Your task to perform on an android device: open app "Facebook" Image 0: 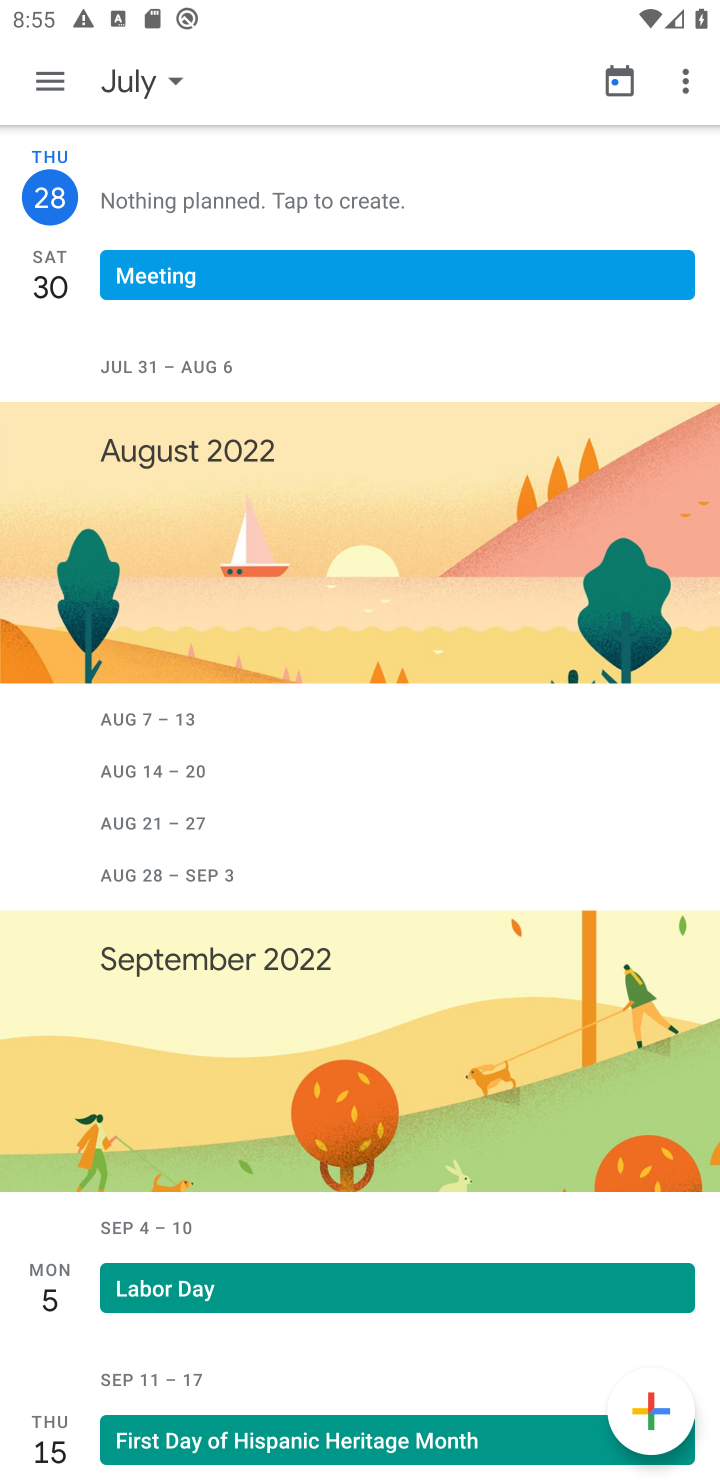
Step 0: press home button
Your task to perform on an android device: open app "Facebook" Image 1: 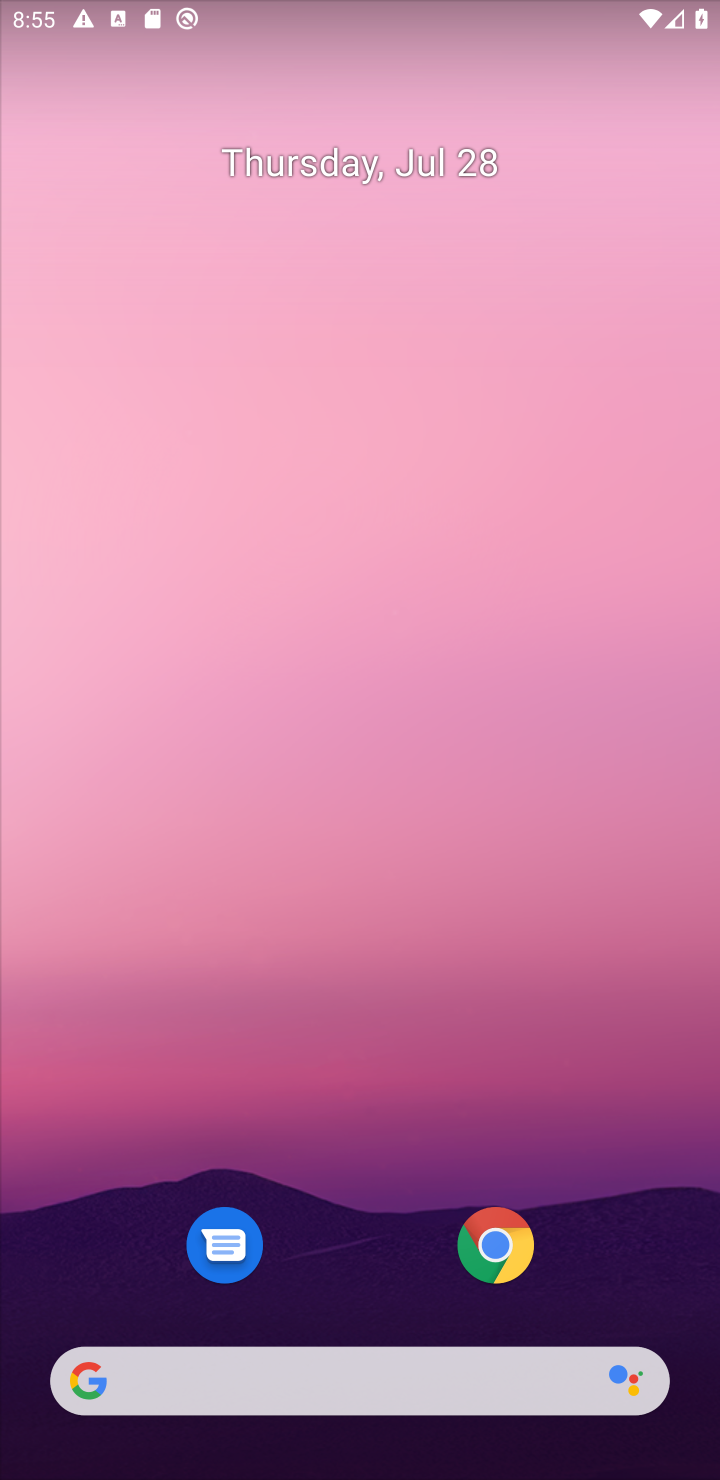
Step 1: drag from (354, 1236) to (368, 573)
Your task to perform on an android device: open app "Facebook" Image 2: 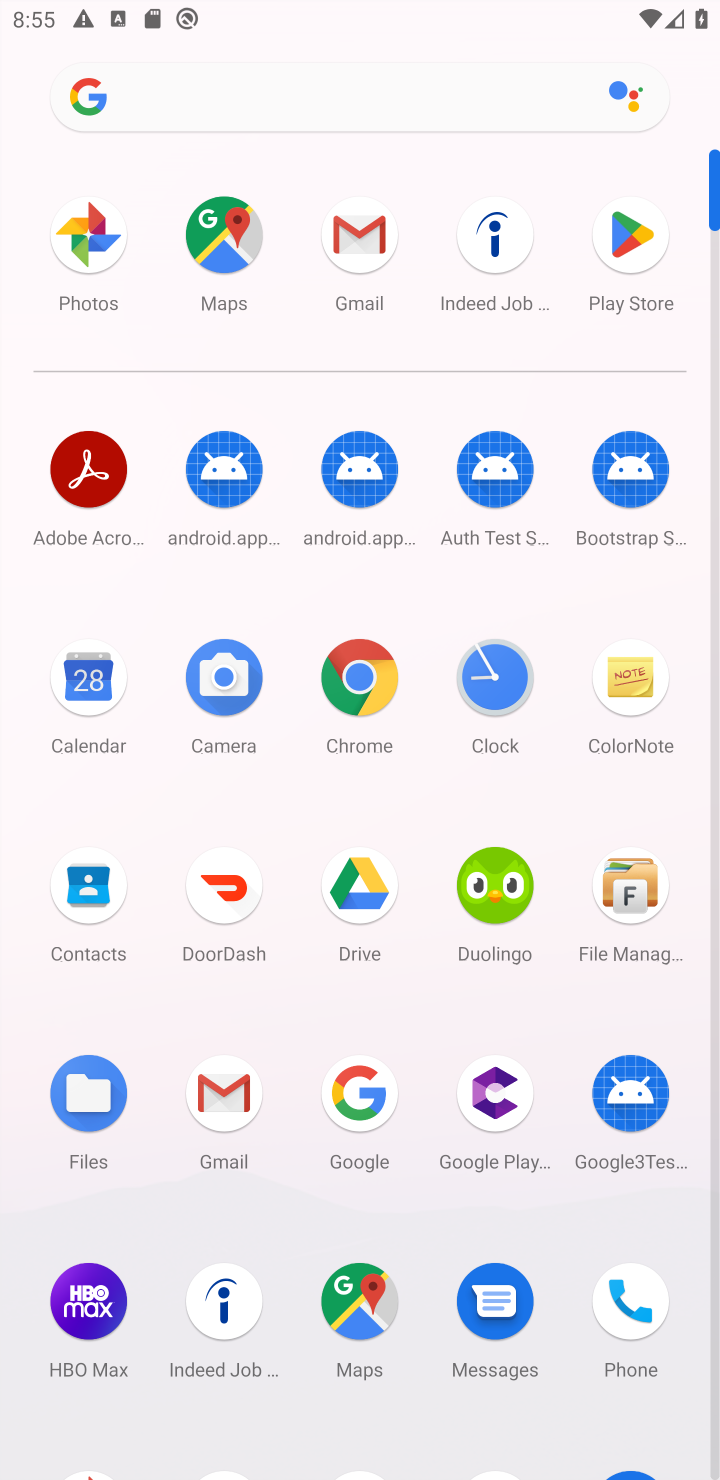
Step 2: click (649, 215)
Your task to perform on an android device: open app "Facebook" Image 3: 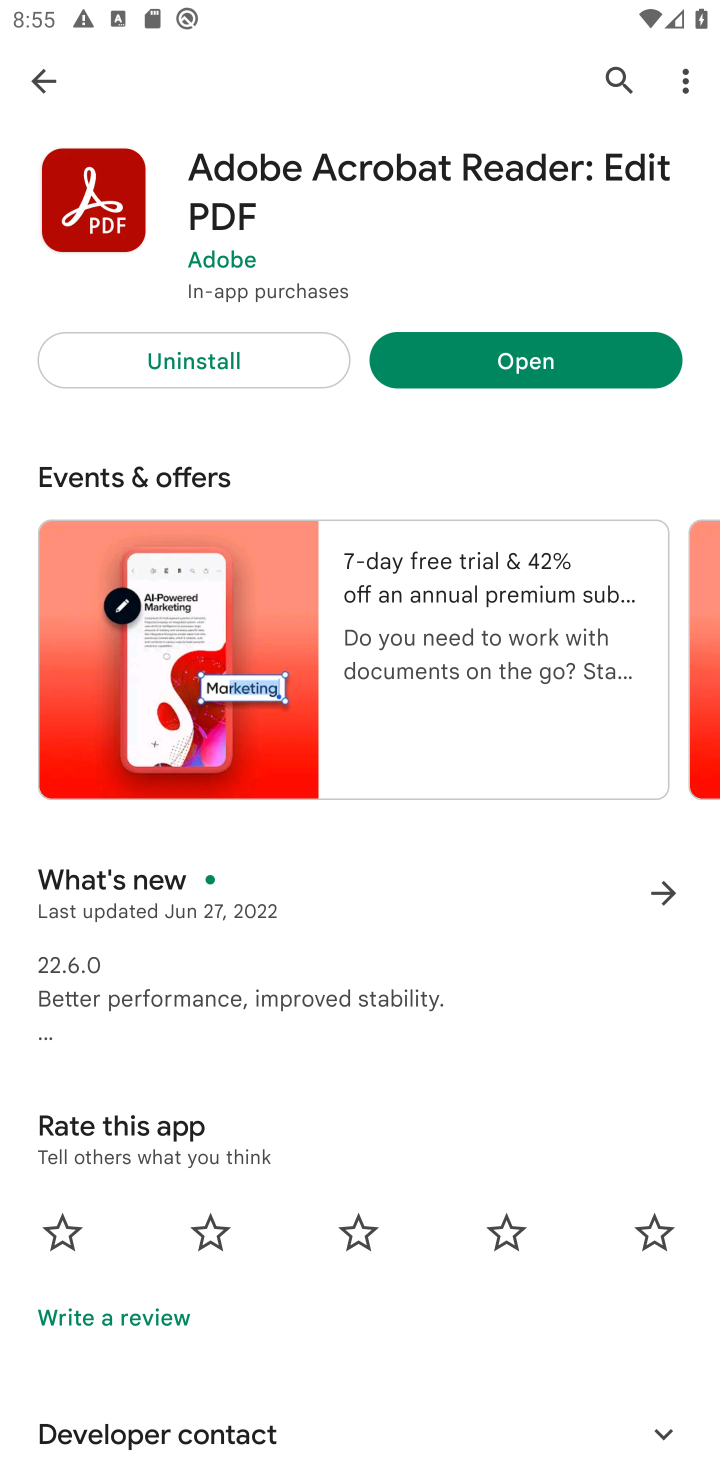
Step 3: click (617, 71)
Your task to perform on an android device: open app "Facebook" Image 4: 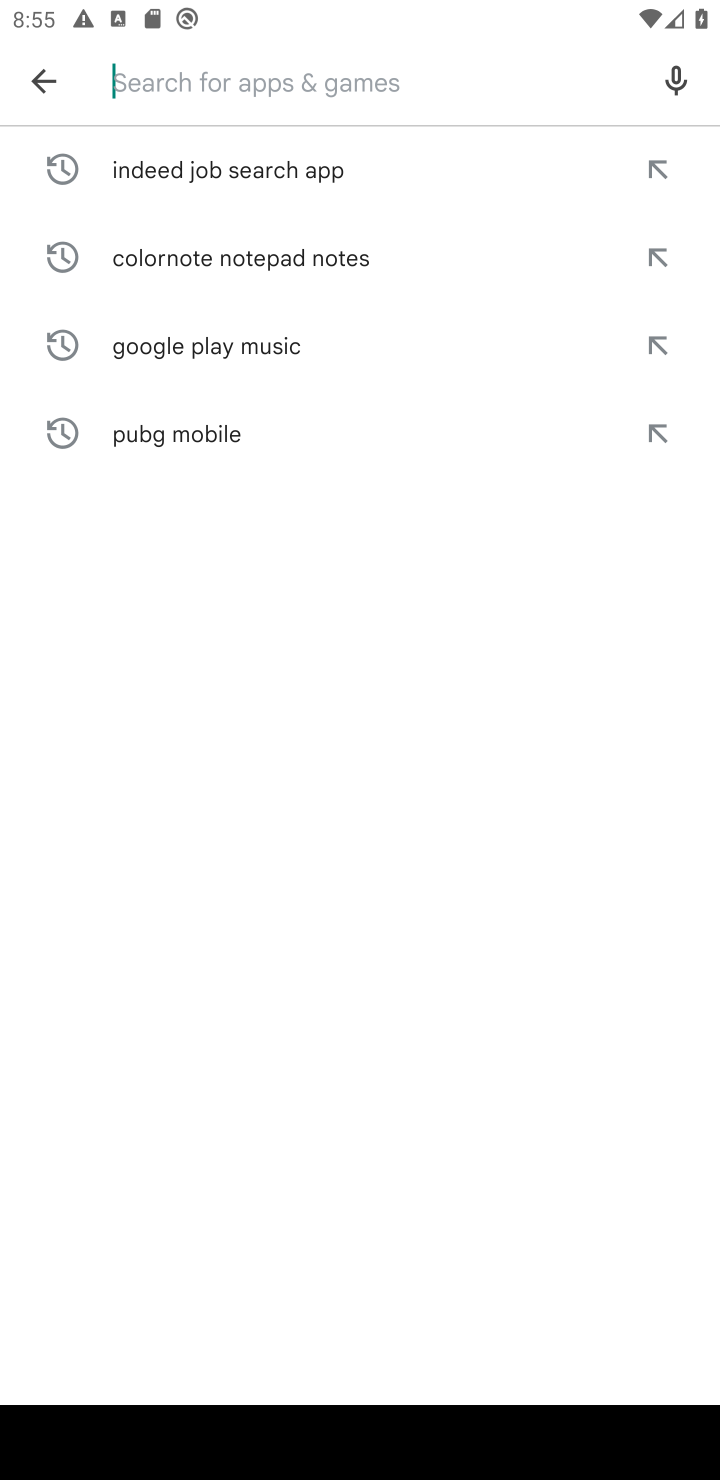
Step 4: type "Facebook"
Your task to perform on an android device: open app "Facebook" Image 5: 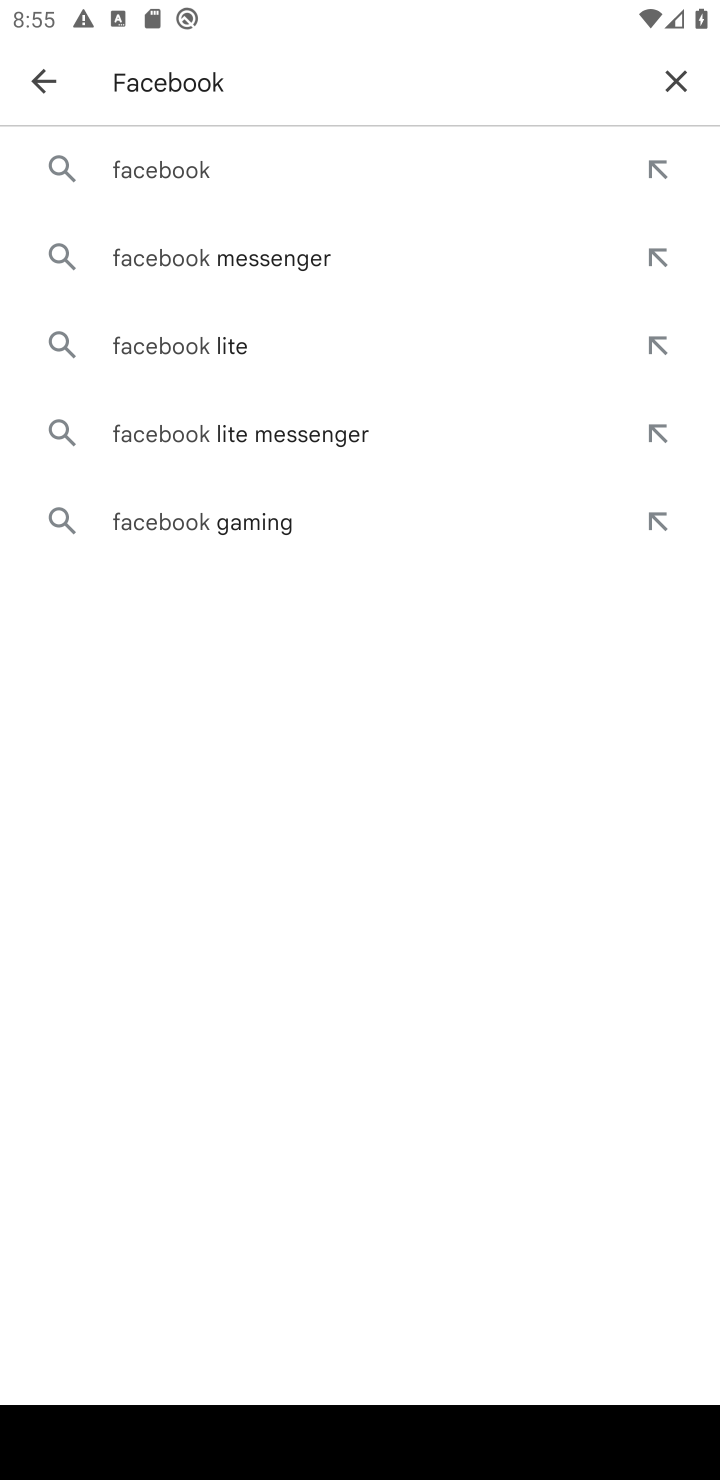
Step 5: click (261, 158)
Your task to perform on an android device: open app "Facebook" Image 6: 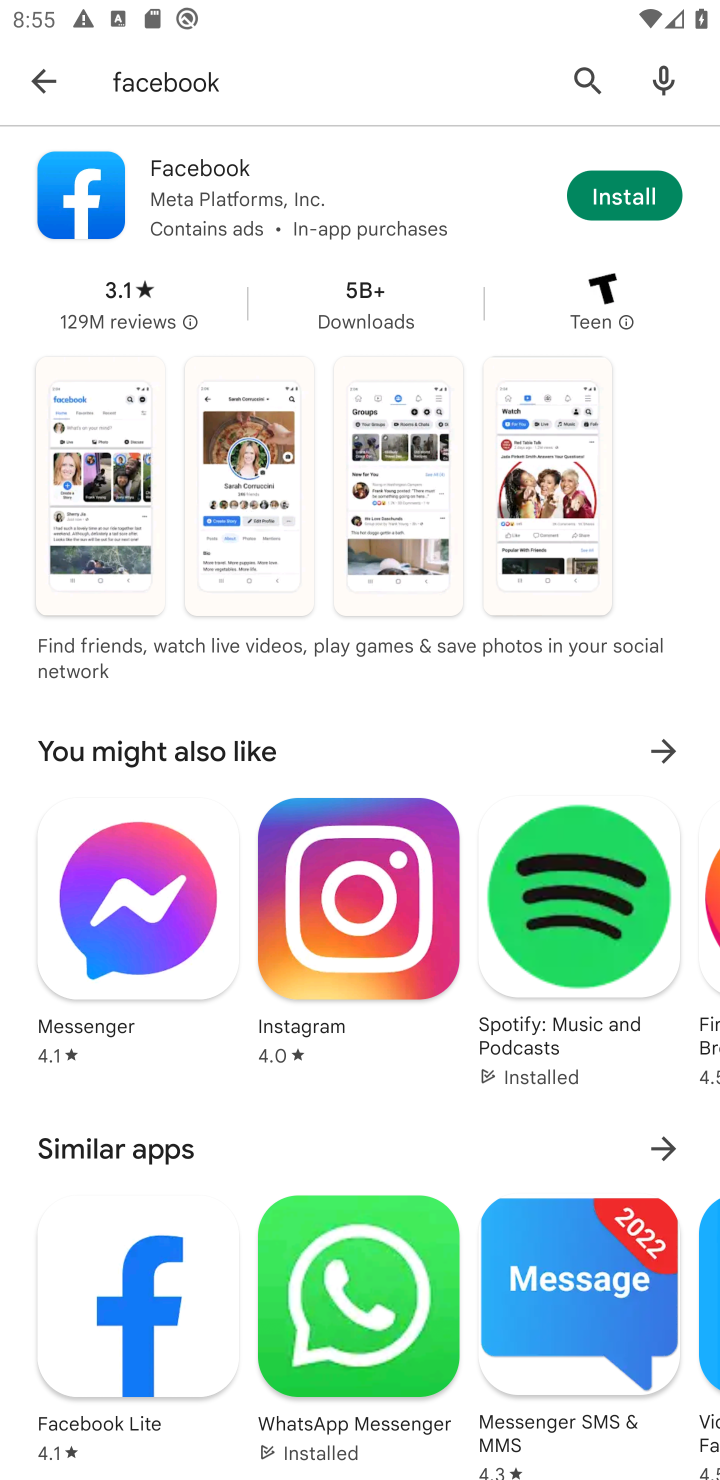
Step 6: click (236, 161)
Your task to perform on an android device: open app "Facebook" Image 7: 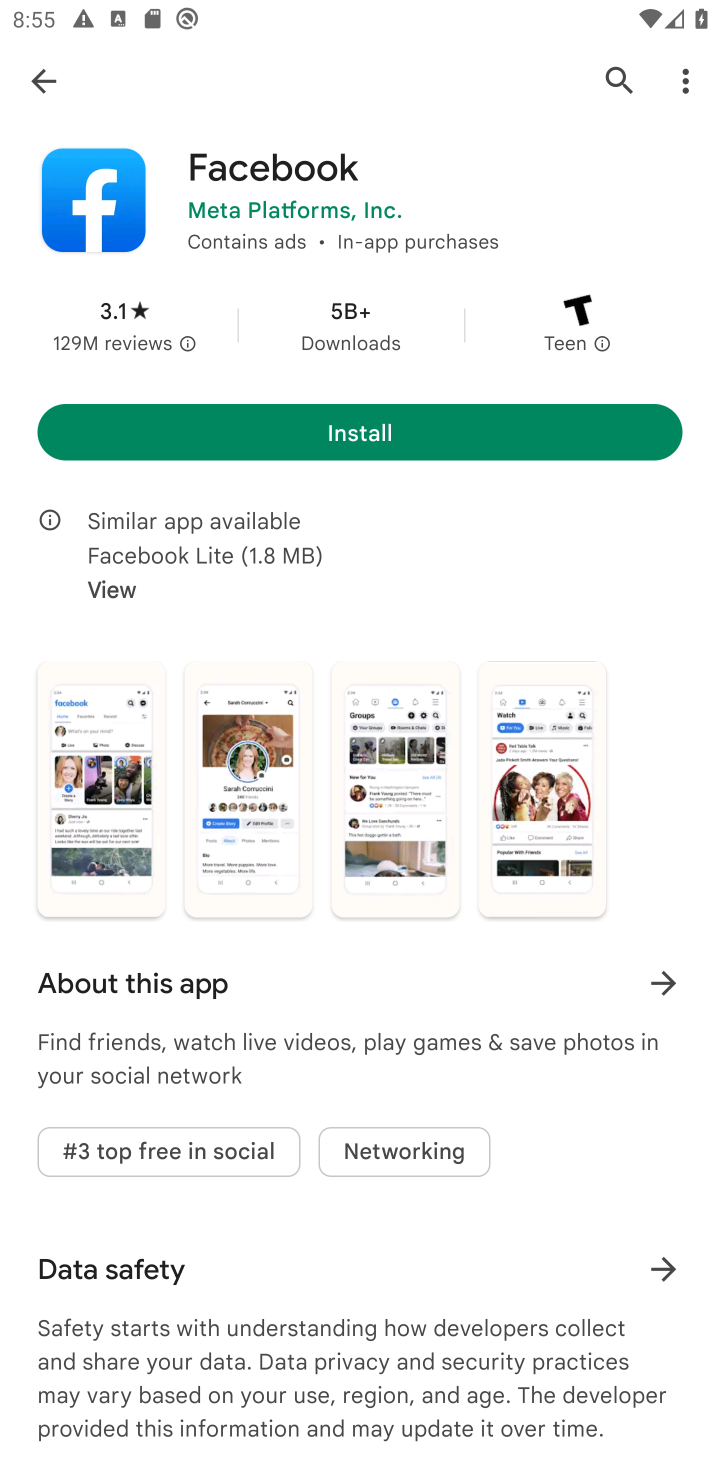
Step 7: task complete